Your task to perform on an android device: Open Amazon Image 0: 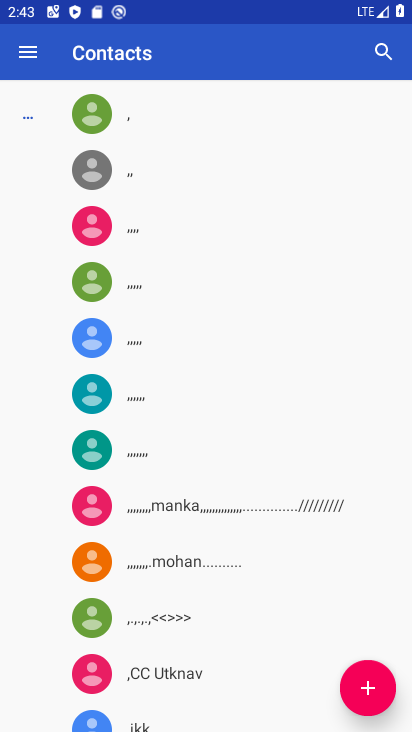
Step 0: click (263, 731)
Your task to perform on an android device: Open Amazon Image 1: 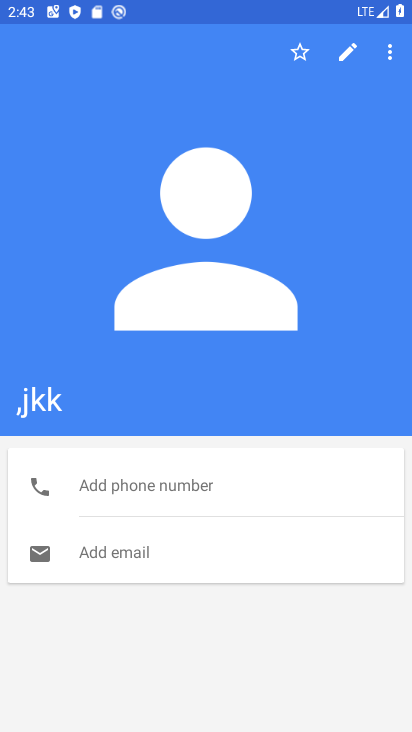
Step 1: press home button
Your task to perform on an android device: Open Amazon Image 2: 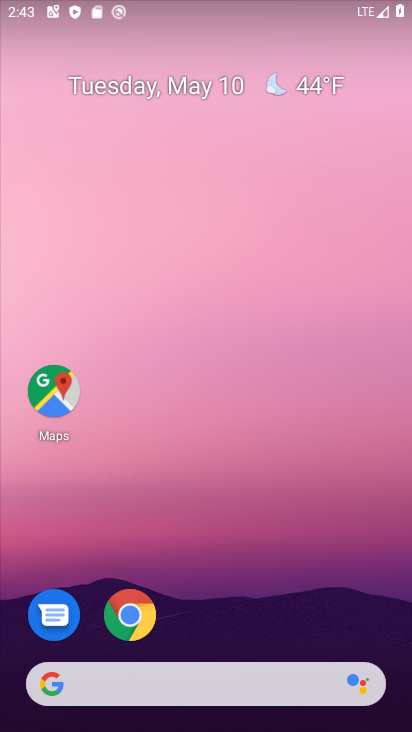
Step 2: click (134, 631)
Your task to perform on an android device: Open Amazon Image 3: 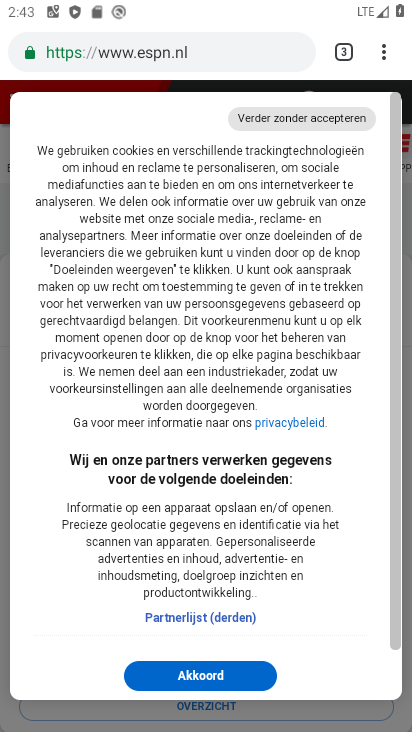
Step 3: drag from (378, 48) to (309, 108)
Your task to perform on an android device: Open Amazon Image 4: 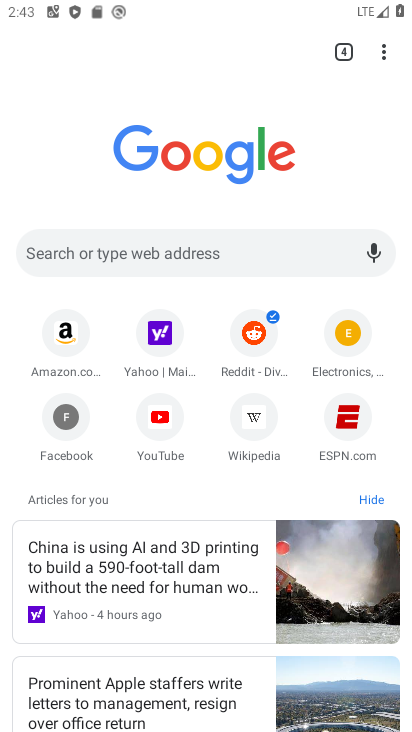
Step 4: click (66, 338)
Your task to perform on an android device: Open Amazon Image 5: 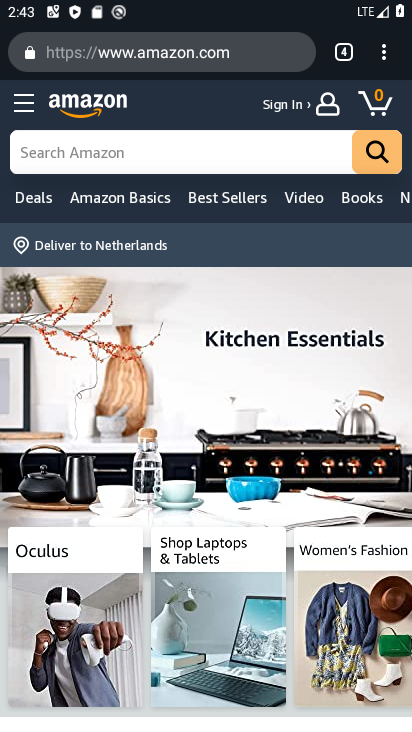
Step 5: task complete